Your task to perform on an android device: open the mobile data screen to see how much data has been used Image 0: 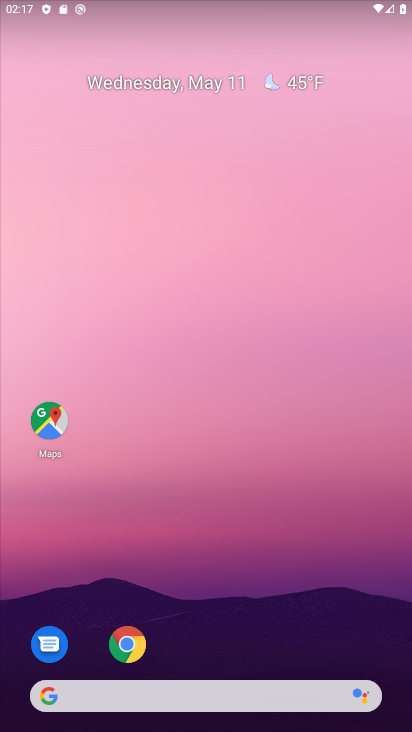
Step 0: drag from (223, 609) to (287, 80)
Your task to perform on an android device: open the mobile data screen to see how much data has been used Image 1: 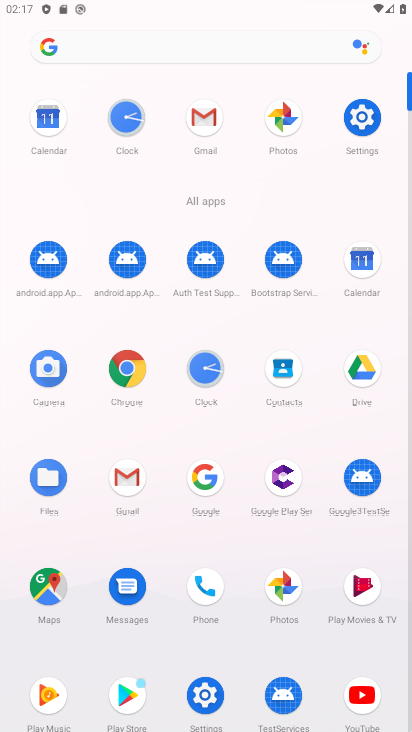
Step 1: click (369, 118)
Your task to perform on an android device: open the mobile data screen to see how much data has been used Image 2: 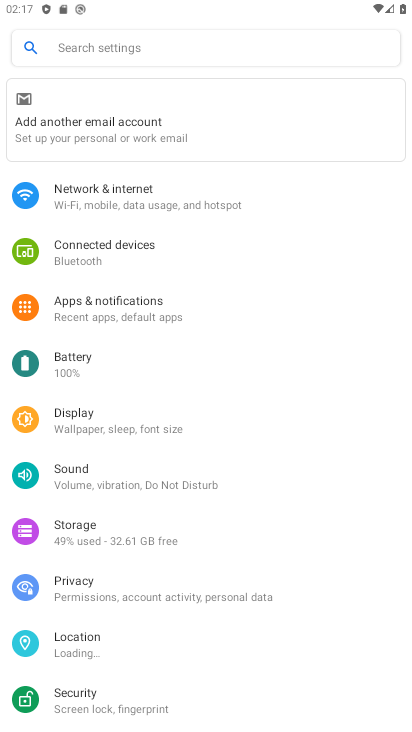
Step 2: click (133, 197)
Your task to perform on an android device: open the mobile data screen to see how much data has been used Image 3: 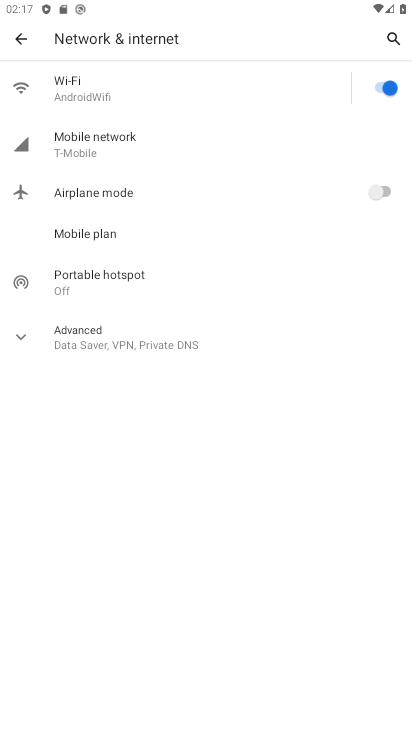
Step 3: click (125, 136)
Your task to perform on an android device: open the mobile data screen to see how much data has been used Image 4: 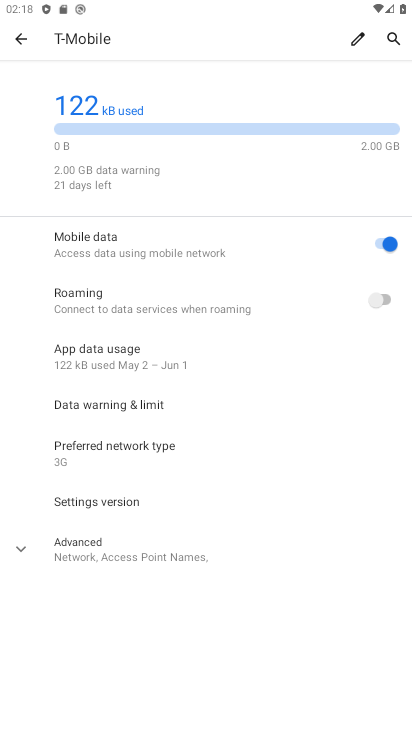
Step 4: click (127, 359)
Your task to perform on an android device: open the mobile data screen to see how much data has been used Image 5: 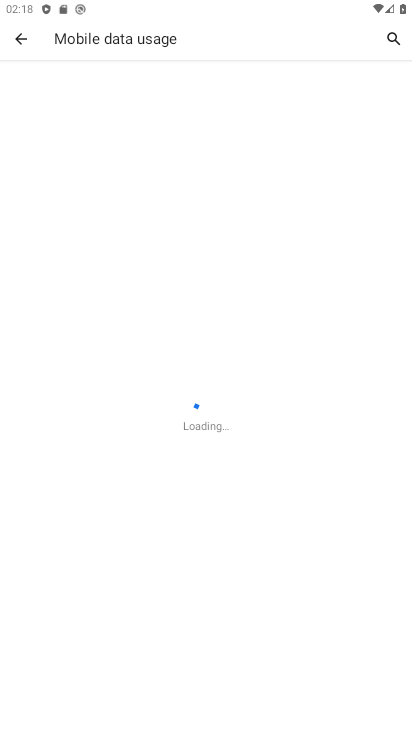
Step 5: task complete